Your task to perform on an android device: Go to Yahoo.com Image 0: 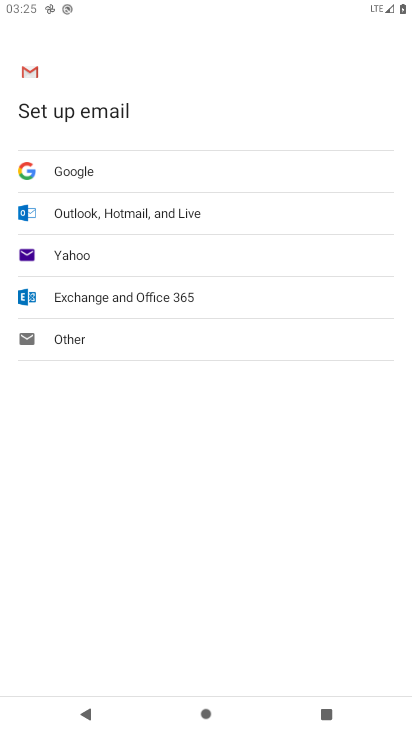
Step 0: press home button
Your task to perform on an android device: Go to Yahoo.com Image 1: 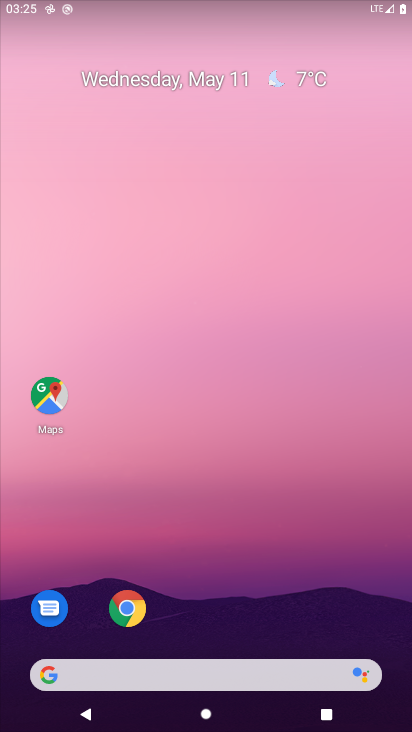
Step 1: drag from (200, 643) to (261, 225)
Your task to perform on an android device: Go to Yahoo.com Image 2: 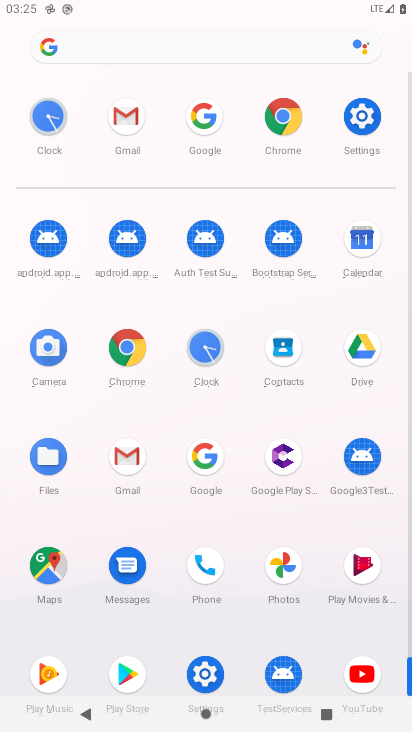
Step 2: click (293, 121)
Your task to perform on an android device: Go to Yahoo.com Image 3: 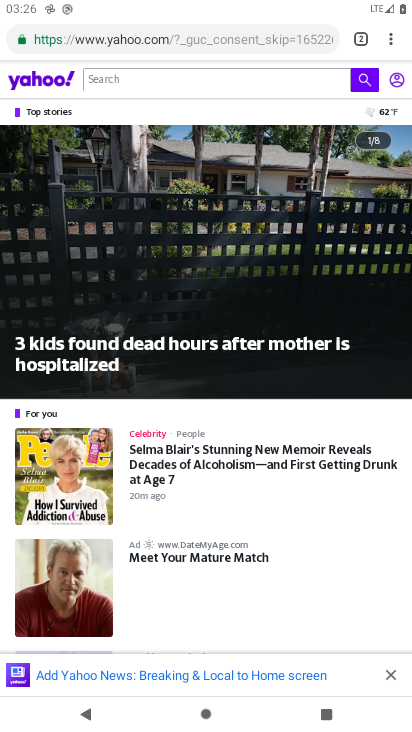
Step 3: task complete